Your task to perform on an android device: Go to accessibility settings Image 0: 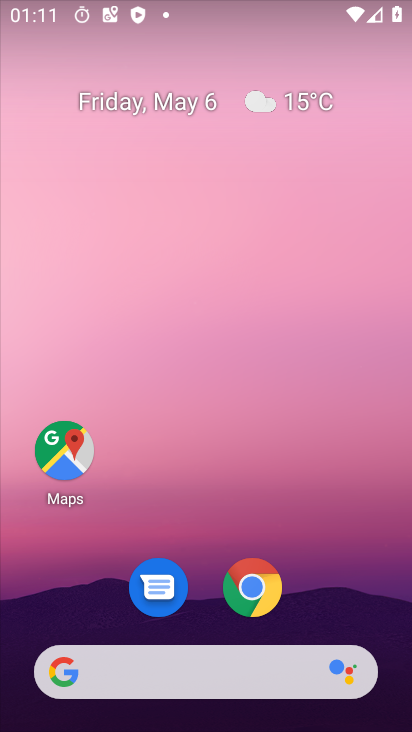
Step 0: drag from (389, 520) to (411, 215)
Your task to perform on an android device: Go to accessibility settings Image 1: 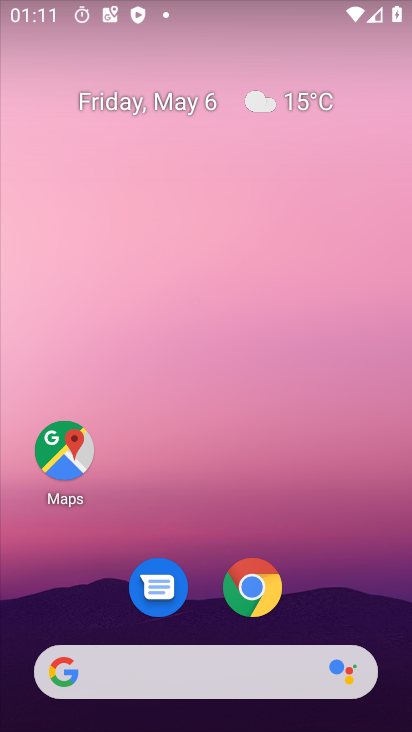
Step 1: drag from (369, 579) to (405, 176)
Your task to perform on an android device: Go to accessibility settings Image 2: 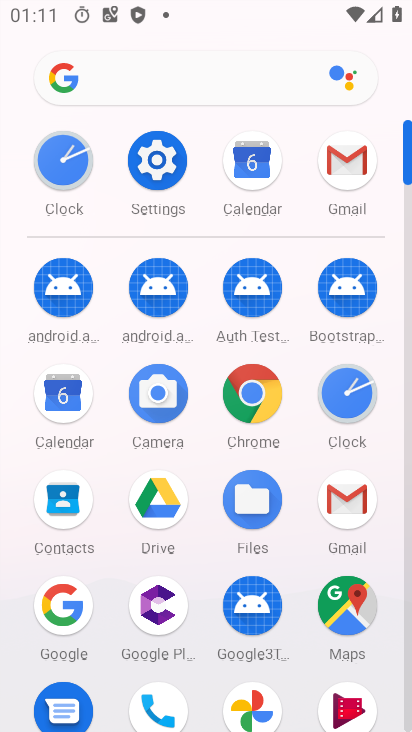
Step 2: click (163, 180)
Your task to perform on an android device: Go to accessibility settings Image 3: 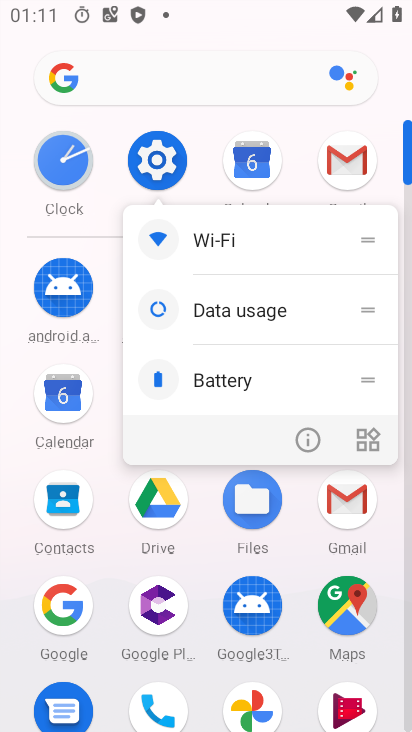
Step 3: click (163, 157)
Your task to perform on an android device: Go to accessibility settings Image 4: 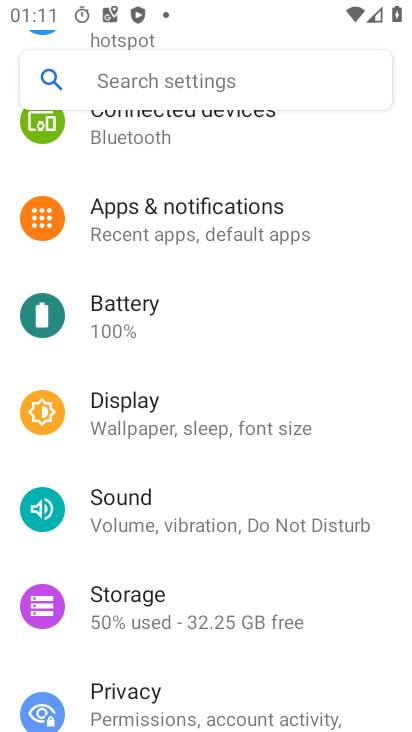
Step 4: drag from (306, 678) to (309, 395)
Your task to perform on an android device: Go to accessibility settings Image 5: 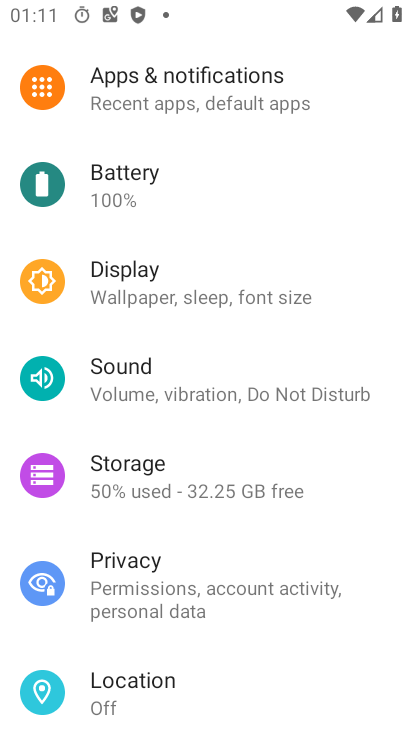
Step 5: drag from (330, 674) to (322, 363)
Your task to perform on an android device: Go to accessibility settings Image 6: 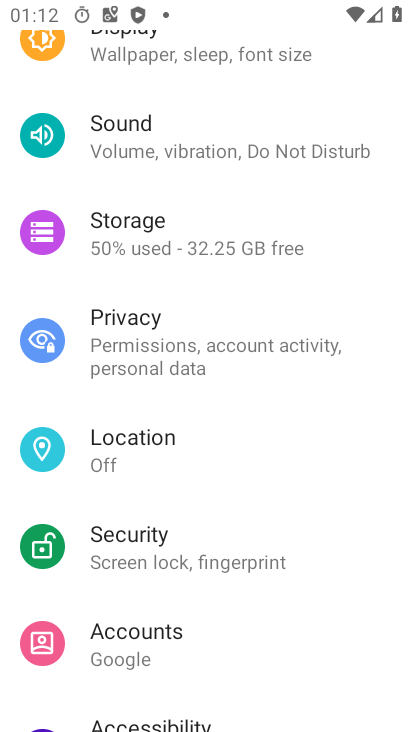
Step 6: drag from (351, 643) to (343, 301)
Your task to perform on an android device: Go to accessibility settings Image 7: 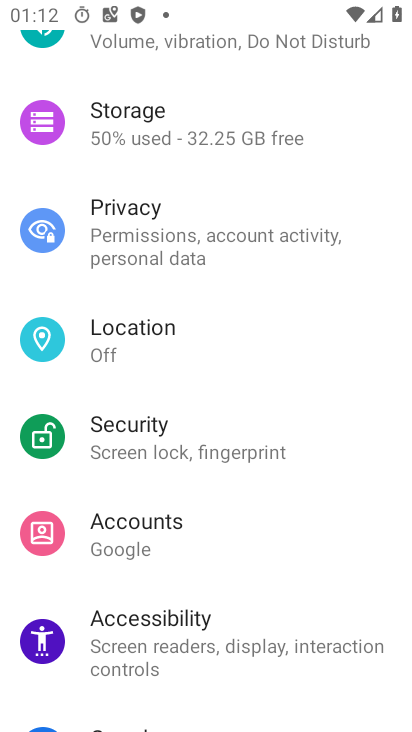
Step 7: drag from (346, 647) to (333, 343)
Your task to perform on an android device: Go to accessibility settings Image 8: 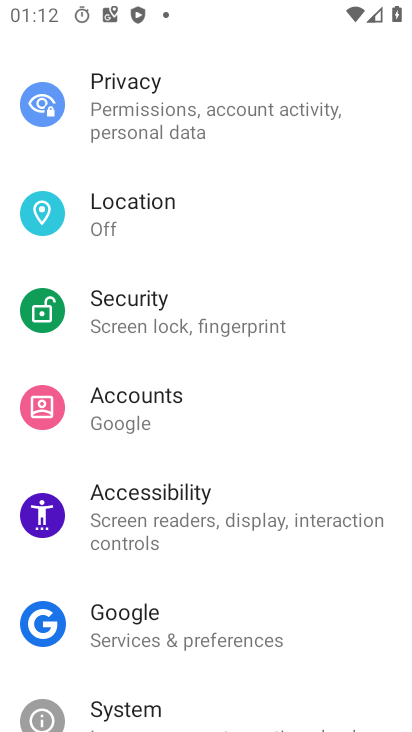
Step 8: click (141, 488)
Your task to perform on an android device: Go to accessibility settings Image 9: 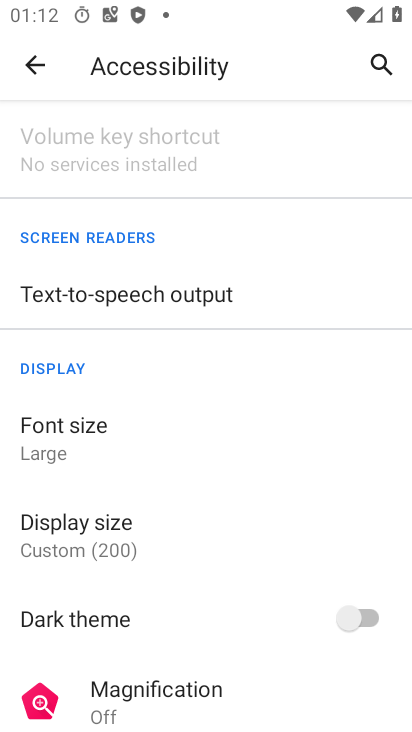
Step 9: task complete